Your task to perform on an android device: move a message to another label in the gmail app Image 0: 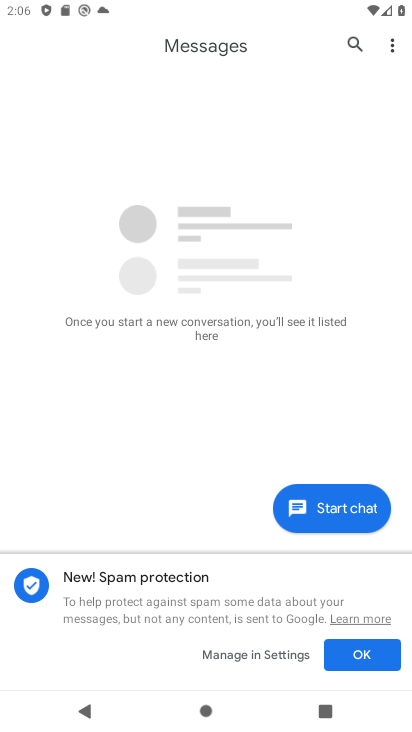
Step 0: press home button
Your task to perform on an android device: move a message to another label in the gmail app Image 1: 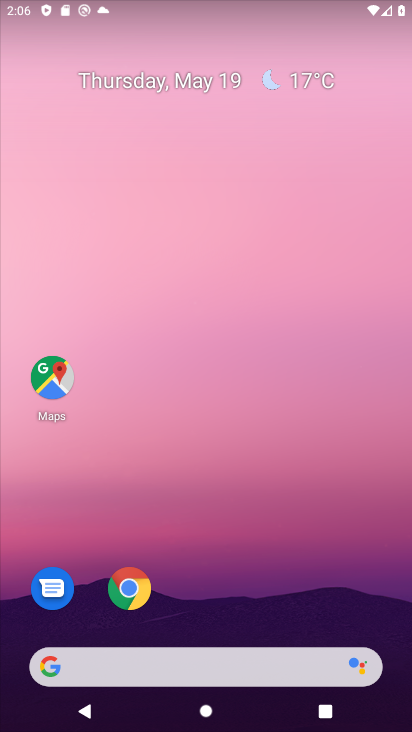
Step 1: drag from (366, 614) to (338, 173)
Your task to perform on an android device: move a message to another label in the gmail app Image 2: 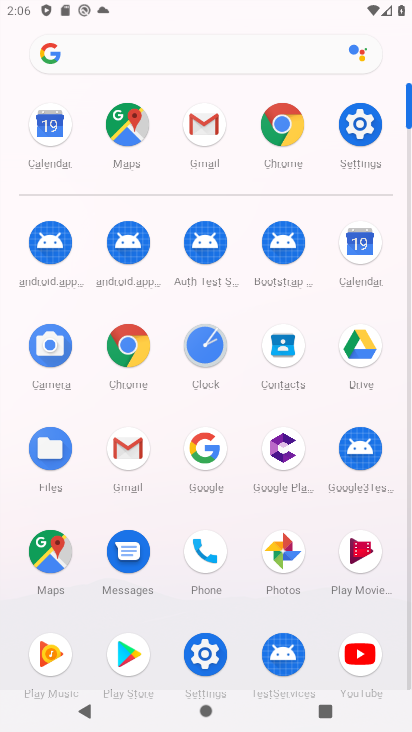
Step 2: click (220, 130)
Your task to perform on an android device: move a message to another label in the gmail app Image 3: 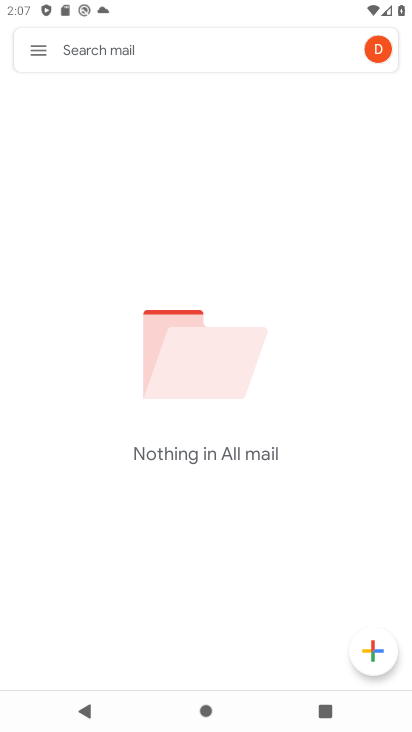
Step 3: task complete